Your task to perform on an android device: change the clock display to show seconds Image 0: 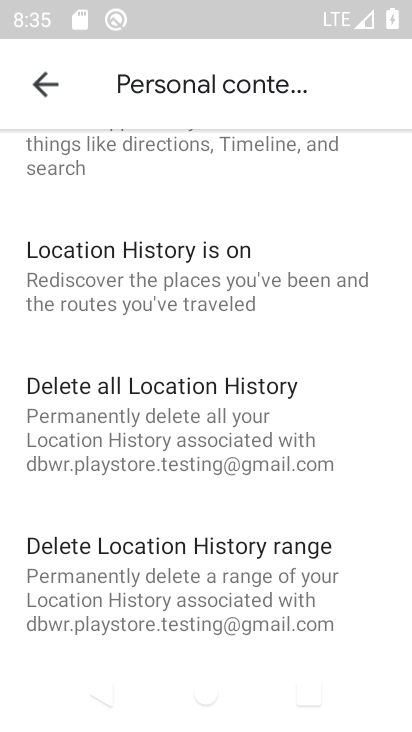
Step 0: press home button
Your task to perform on an android device: change the clock display to show seconds Image 1: 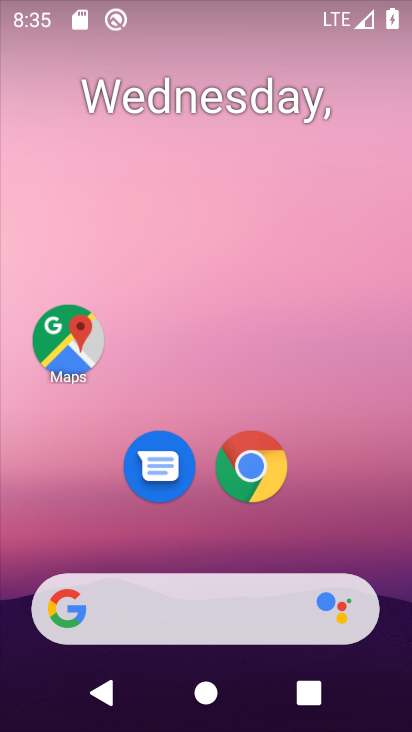
Step 1: drag from (228, 722) to (227, 282)
Your task to perform on an android device: change the clock display to show seconds Image 2: 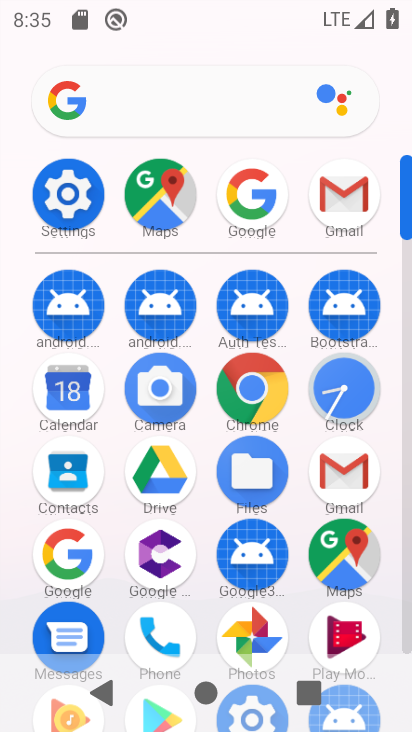
Step 2: click (355, 388)
Your task to perform on an android device: change the clock display to show seconds Image 3: 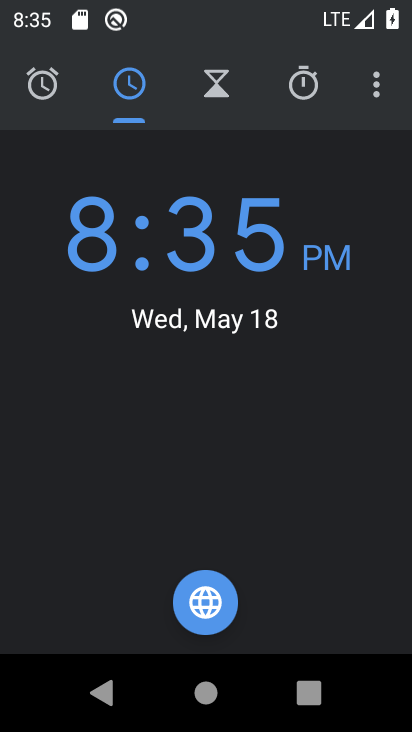
Step 3: click (380, 95)
Your task to perform on an android device: change the clock display to show seconds Image 4: 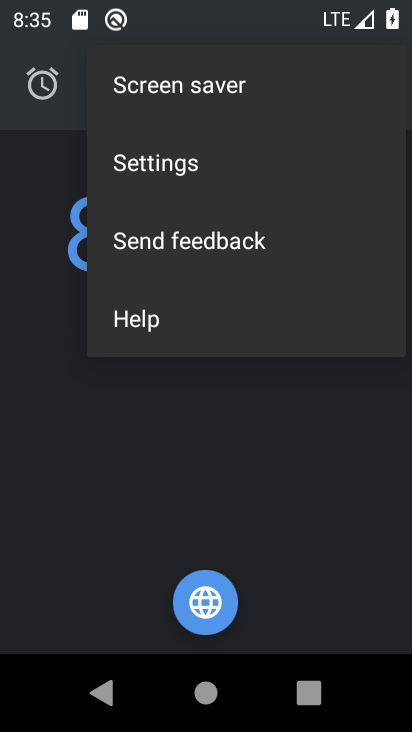
Step 4: click (151, 167)
Your task to perform on an android device: change the clock display to show seconds Image 5: 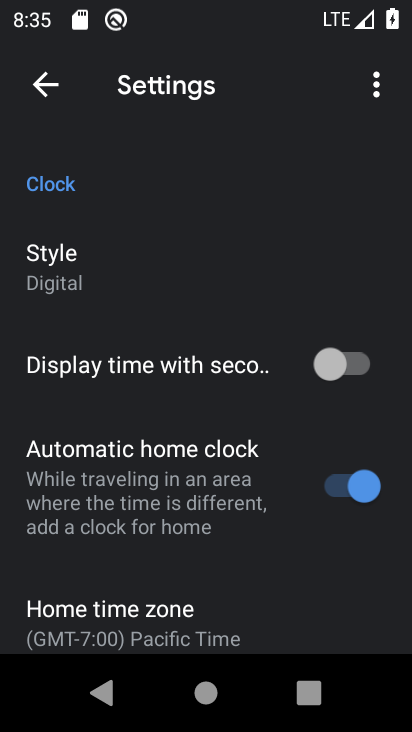
Step 5: click (367, 357)
Your task to perform on an android device: change the clock display to show seconds Image 6: 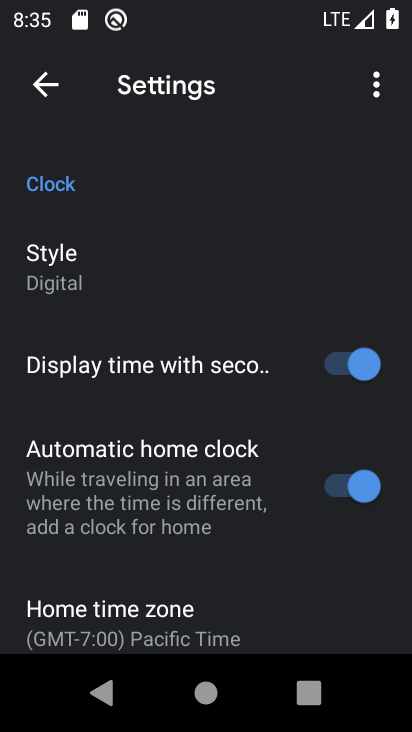
Step 6: task complete